Your task to perform on an android device: toggle improve location accuracy Image 0: 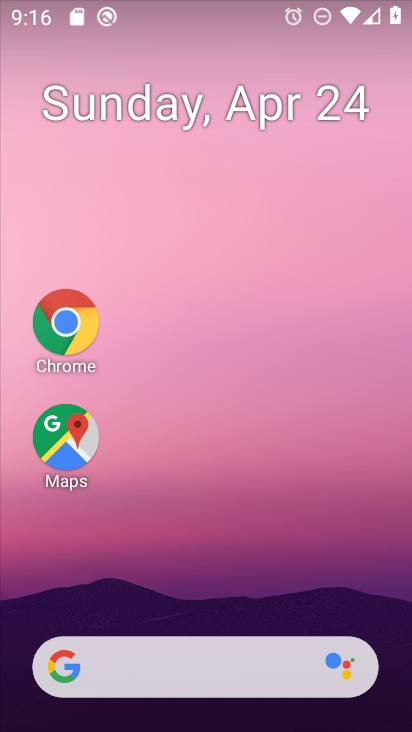
Step 0: drag from (246, 559) to (113, 36)
Your task to perform on an android device: toggle improve location accuracy Image 1: 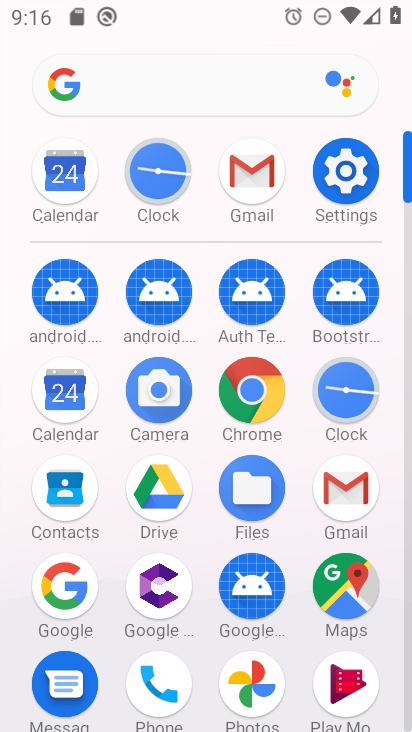
Step 1: click (343, 183)
Your task to perform on an android device: toggle improve location accuracy Image 2: 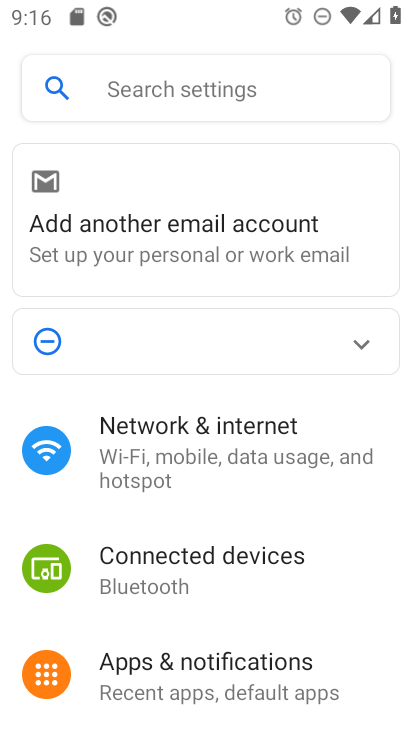
Step 2: drag from (185, 610) to (87, 191)
Your task to perform on an android device: toggle improve location accuracy Image 3: 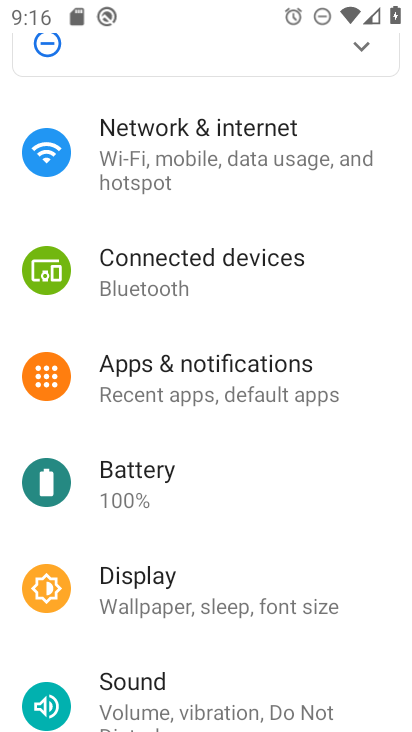
Step 3: drag from (204, 544) to (110, 240)
Your task to perform on an android device: toggle improve location accuracy Image 4: 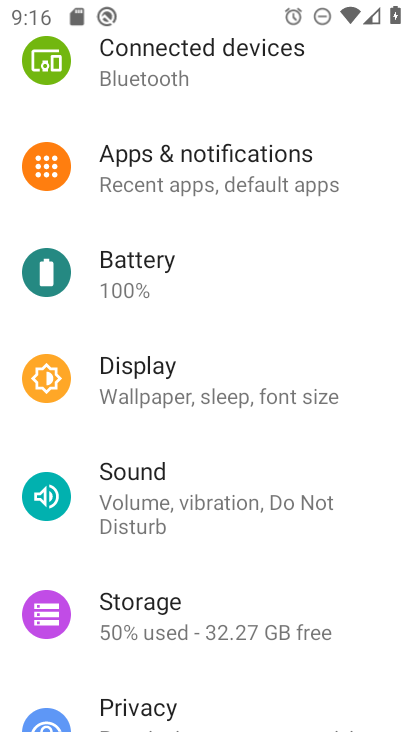
Step 4: drag from (189, 477) to (126, 259)
Your task to perform on an android device: toggle improve location accuracy Image 5: 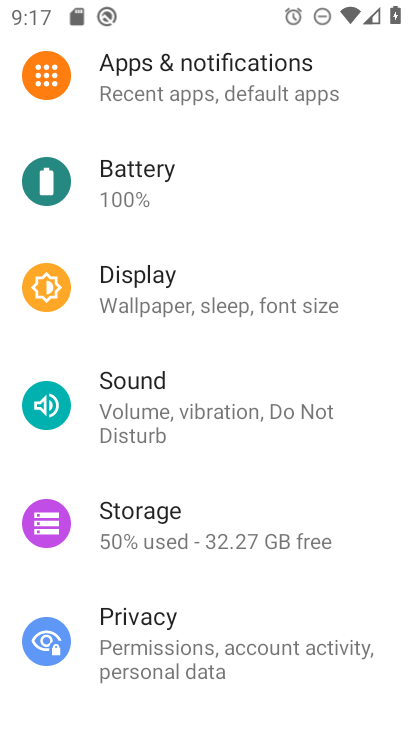
Step 5: drag from (273, 456) to (220, 186)
Your task to perform on an android device: toggle improve location accuracy Image 6: 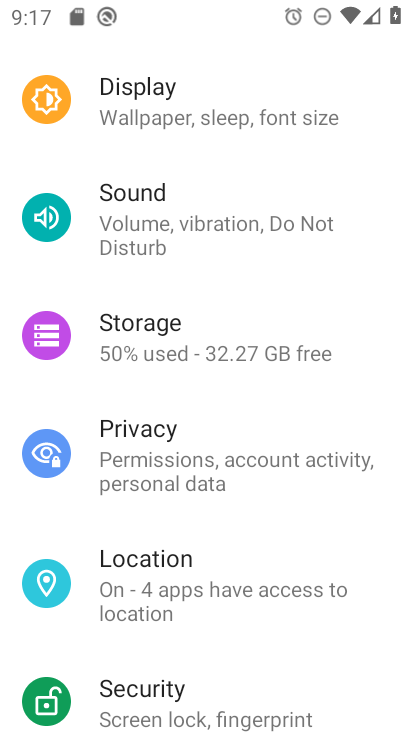
Step 6: click (141, 562)
Your task to perform on an android device: toggle improve location accuracy Image 7: 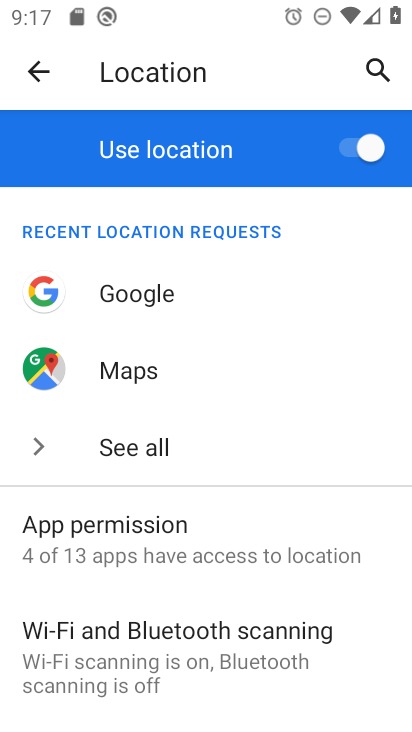
Step 7: drag from (163, 584) to (101, 323)
Your task to perform on an android device: toggle improve location accuracy Image 8: 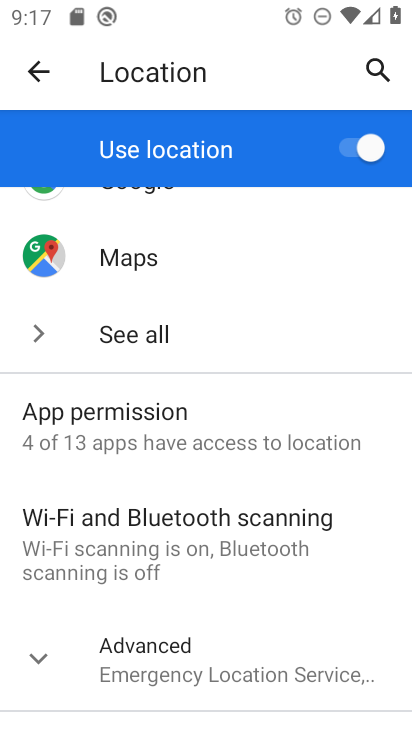
Step 8: drag from (250, 580) to (189, 343)
Your task to perform on an android device: toggle improve location accuracy Image 9: 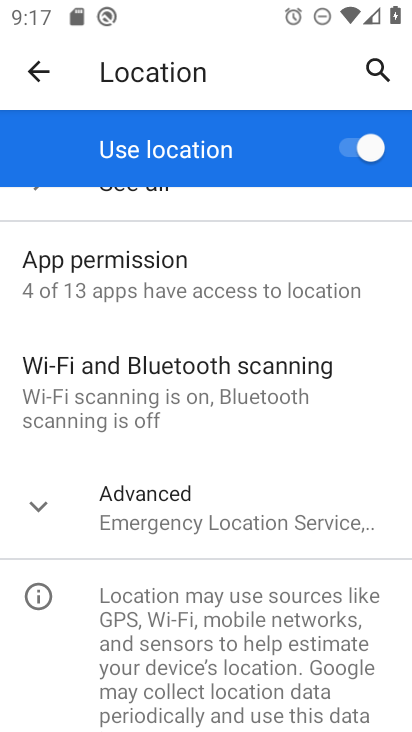
Step 9: click (76, 502)
Your task to perform on an android device: toggle improve location accuracy Image 10: 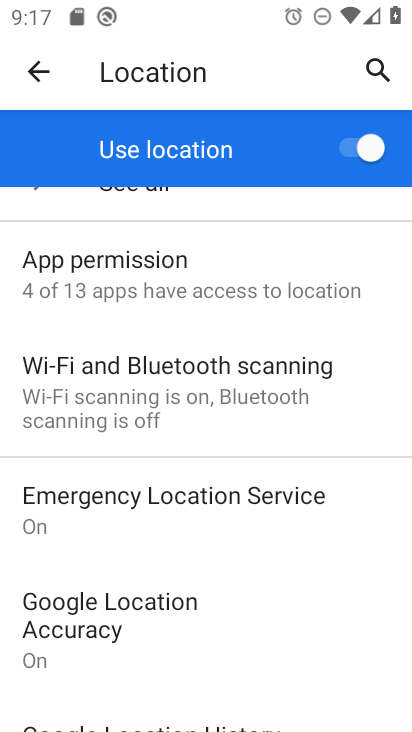
Step 10: click (86, 609)
Your task to perform on an android device: toggle improve location accuracy Image 11: 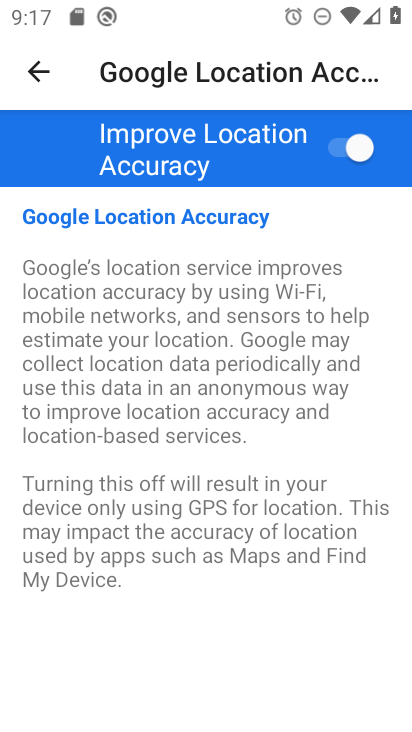
Step 11: click (355, 149)
Your task to perform on an android device: toggle improve location accuracy Image 12: 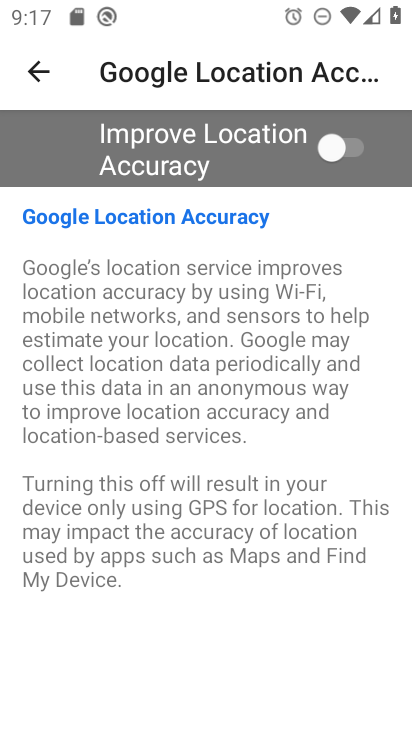
Step 12: task complete